Your task to perform on an android device: turn off data saver in the chrome app Image 0: 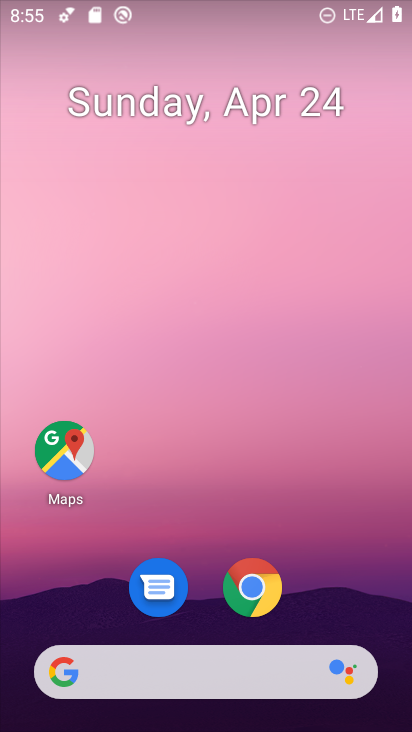
Step 0: click (350, 196)
Your task to perform on an android device: turn off data saver in the chrome app Image 1: 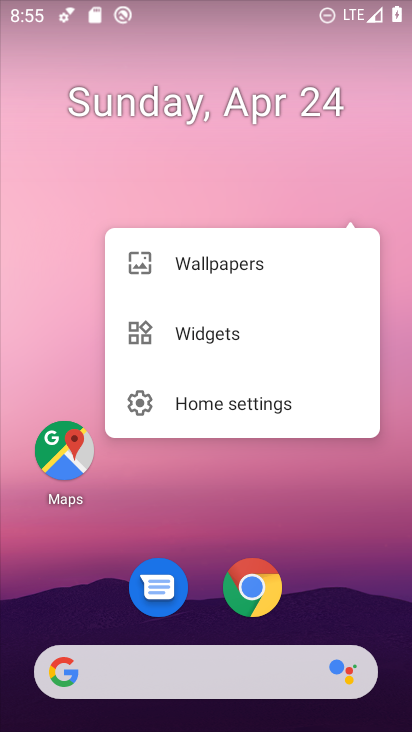
Step 1: drag from (364, 515) to (363, 110)
Your task to perform on an android device: turn off data saver in the chrome app Image 2: 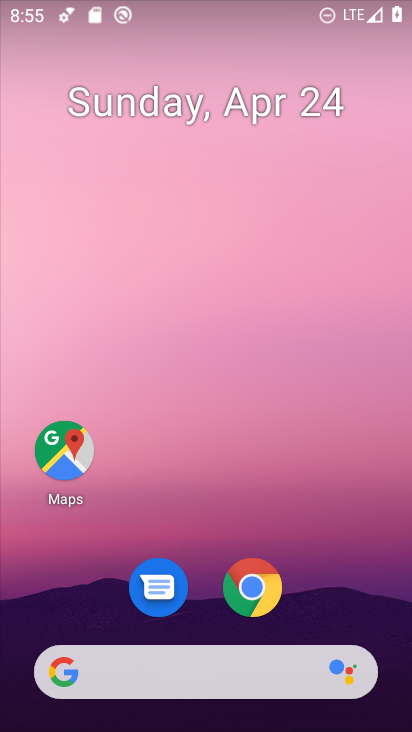
Step 2: drag from (349, 394) to (328, 121)
Your task to perform on an android device: turn off data saver in the chrome app Image 3: 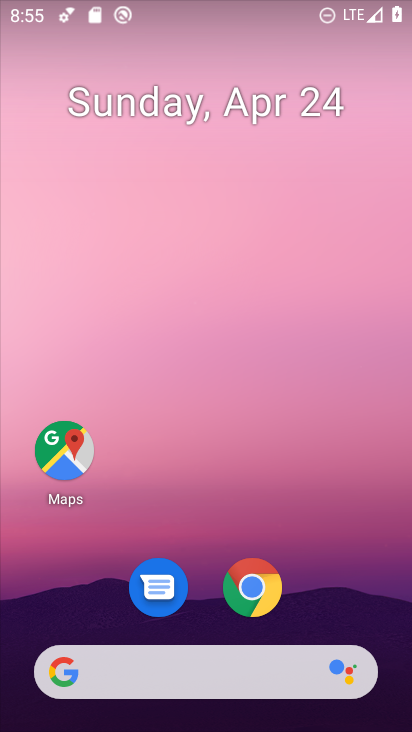
Step 3: drag from (356, 495) to (331, 163)
Your task to perform on an android device: turn off data saver in the chrome app Image 4: 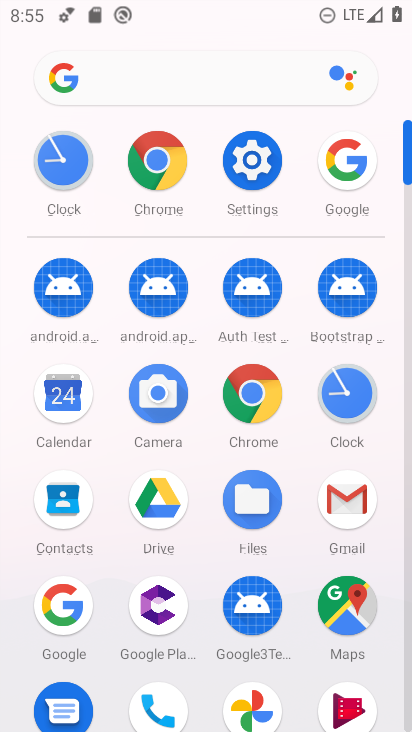
Step 4: click (272, 407)
Your task to perform on an android device: turn off data saver in the chrome app Image 5: 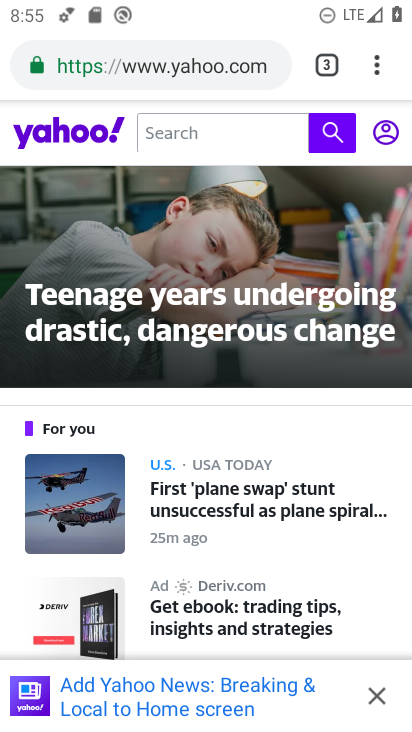
Step 5: drag from (387, 74) to (196, 629)
Your task to perform on an android device: turn off data saver in the chrome app Image 6: 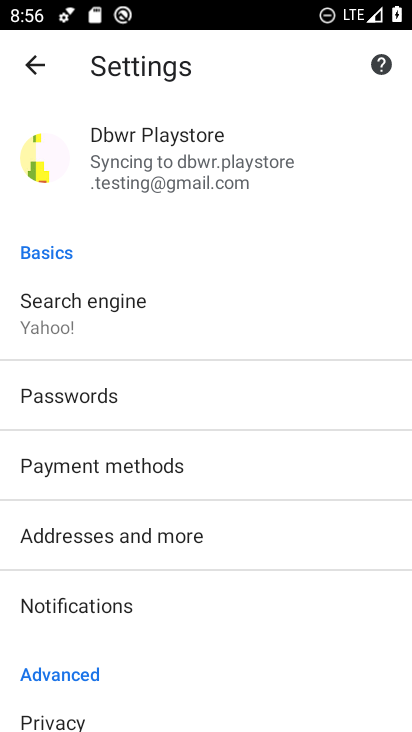
Step 6: drag from (213, 639) to (249, 408)
Your task to perform on an android device: turn off data saver in the chrome app Image 7: 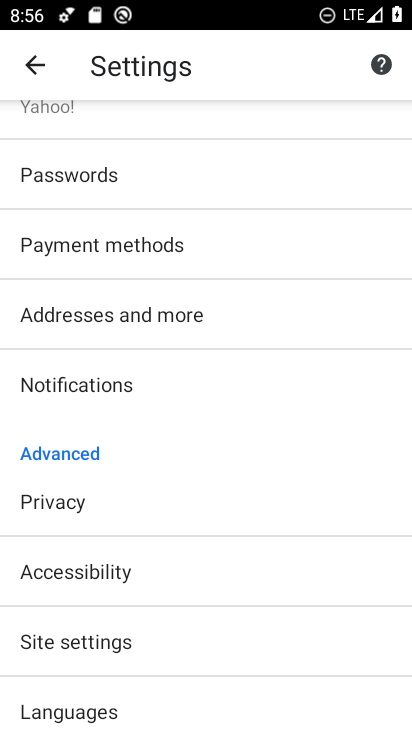
Step 7: drag from (246, 634) to (258, 345)
Your task to perform on an android device: turn off data saver in the chrome app Image 8: 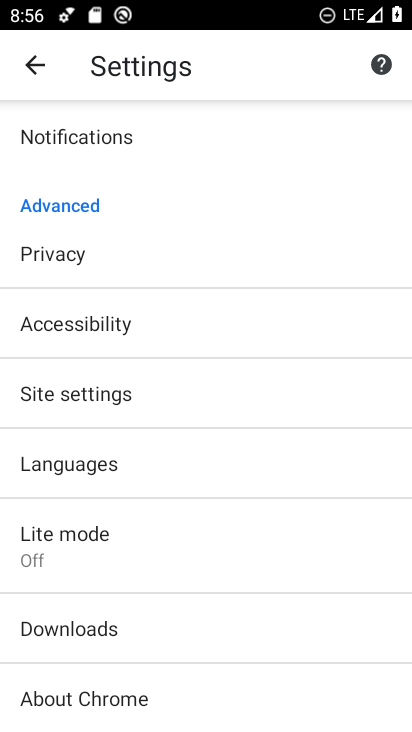
Step 8: click (90, 548)
Your task to perform on an android device: turn off data saver in the chrome app Image 9: 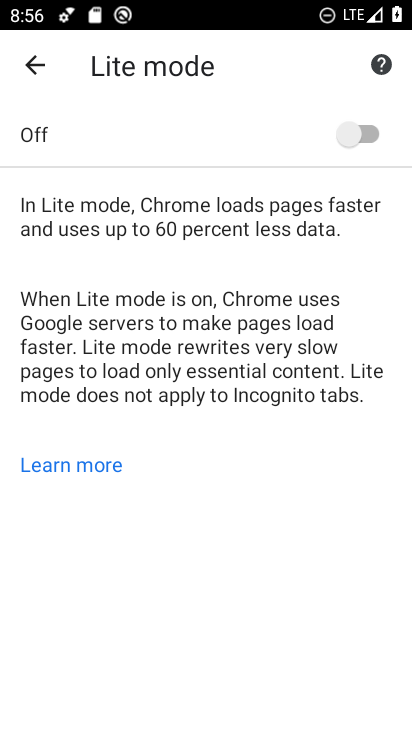
Step 9: task complete